Your task to perform on an android device: Turn off the flashlight Image 0: 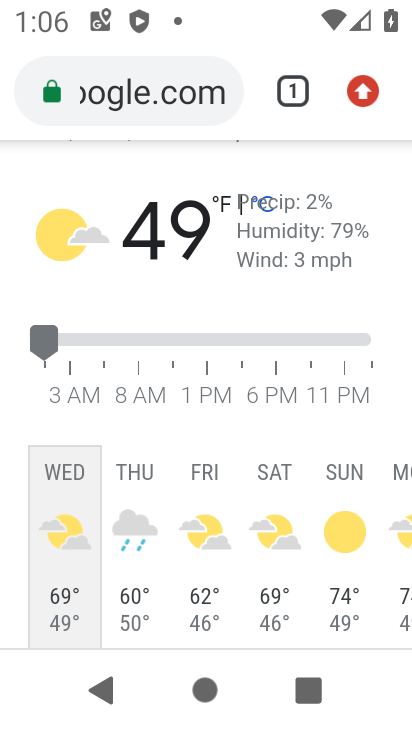
Step 0: press home button
Your task to perform on an android device: Turn off the flashlight Image 1: 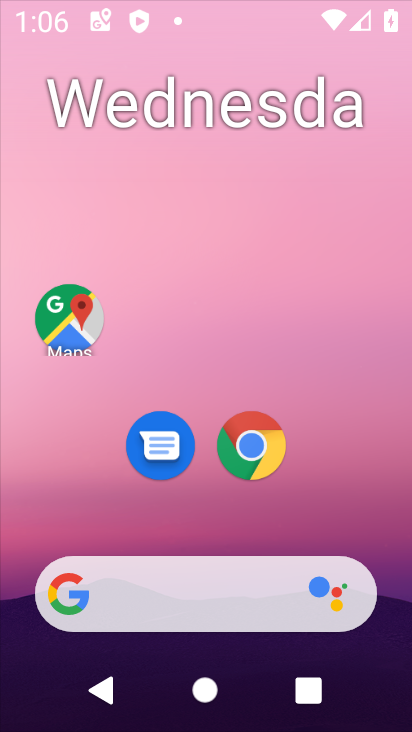
Step 1: task complete